Your task to perform on an android device: toggle priority inbox in the gmail app Image 0: 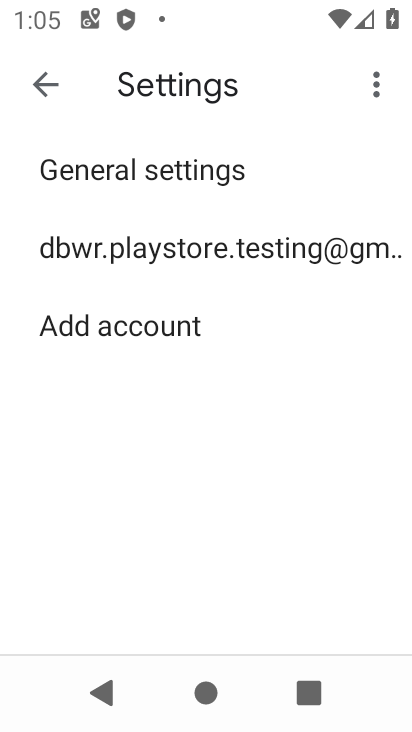
Step 0: click (209, 224)
Your task to perform on an android device: toggle priority inbox in the gmail app Image 1: 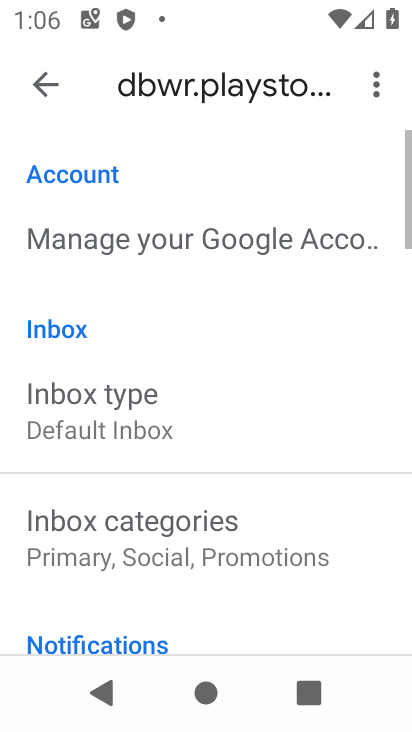
Step 1: click (131, 384)
Your task to perform on an android device: toggle priority inbox in the gmail app Image 2: 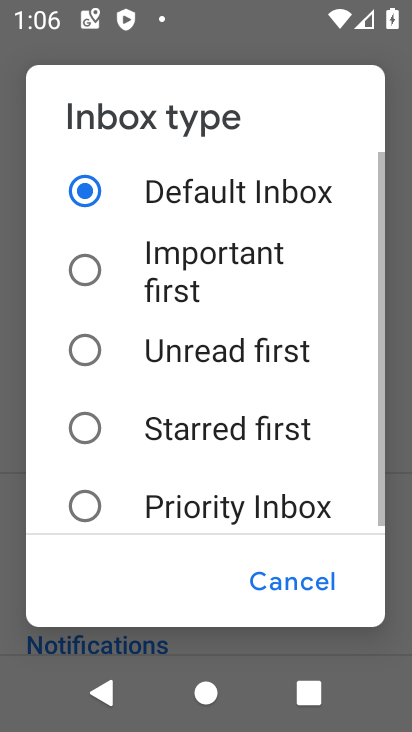
Step 2: drag from (173, 493) to (197, 111)
Your task to perform on an android device: toggle priority inbox in the gmail app Image 3: 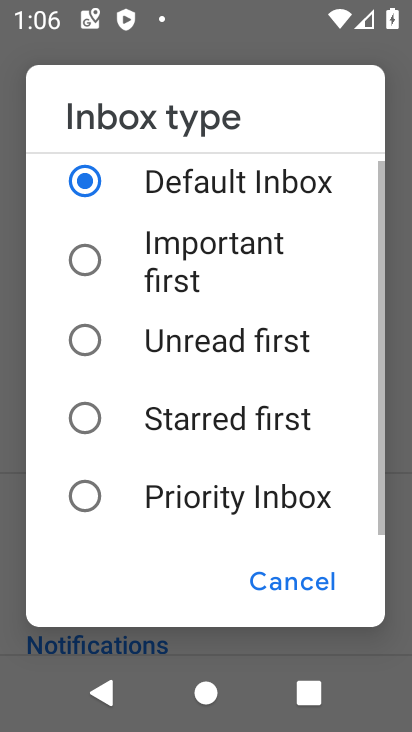
Step 3: click (186, 482)
Your task to perform on an android device: toggle priority inbox in the gmail app Image 4: 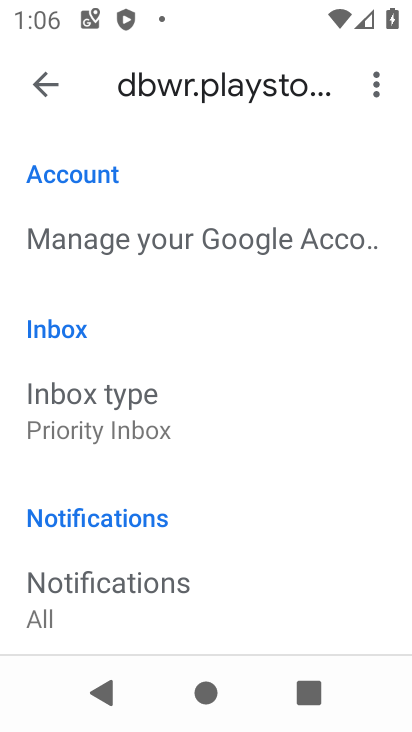
Step 4: task complete